Your task to perform on an android device: Go to Android settings Image 0: 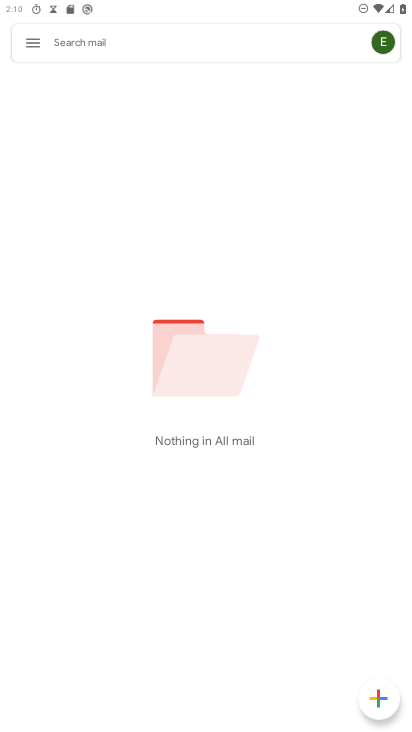
Step 0: press home button
Your task to perform on an android device: Go to Android settings Image 1: 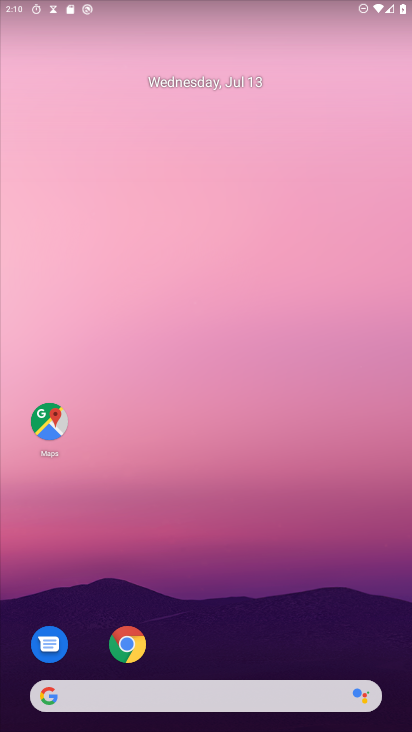
Step 1: drag from (284, 593) to (244, 86)
Your task to perform on an android device: Go to Android settings Image 2: 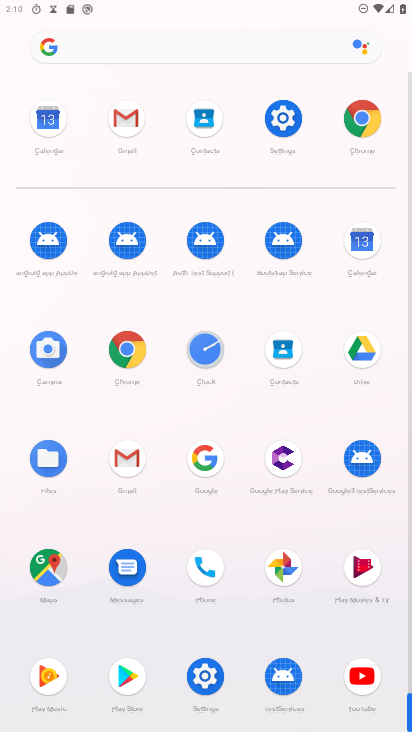
Step 2: click (282, 122)
Your task to perform on an android device: Go to Android settings Image 3: 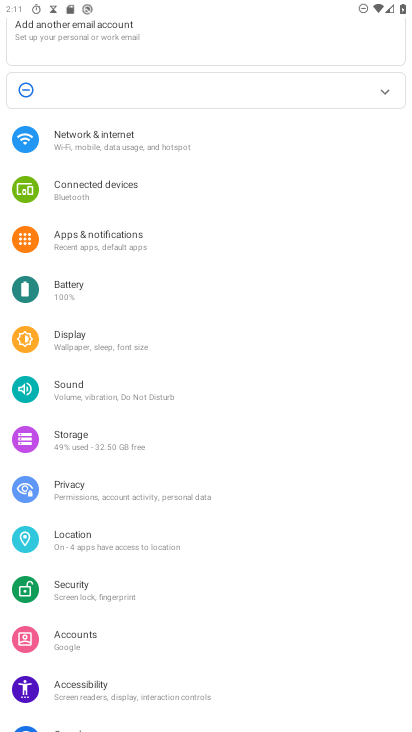
Step 3: task complete